Your task to perform on an android device: Go to sound settings Image 0: 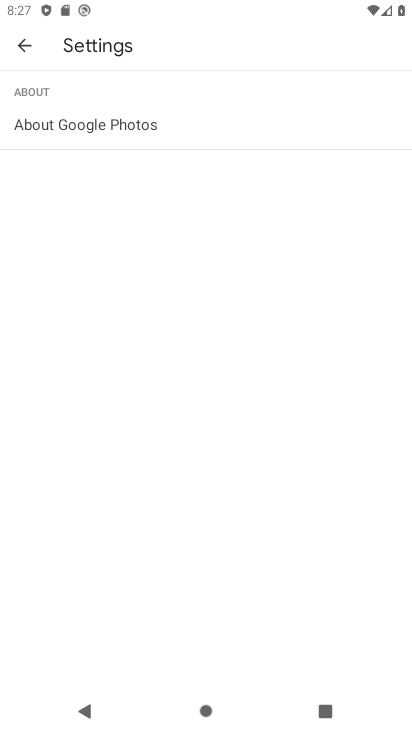
Step 0: press home button
Your task to perform on an android device: Go to sound settings Image 1: 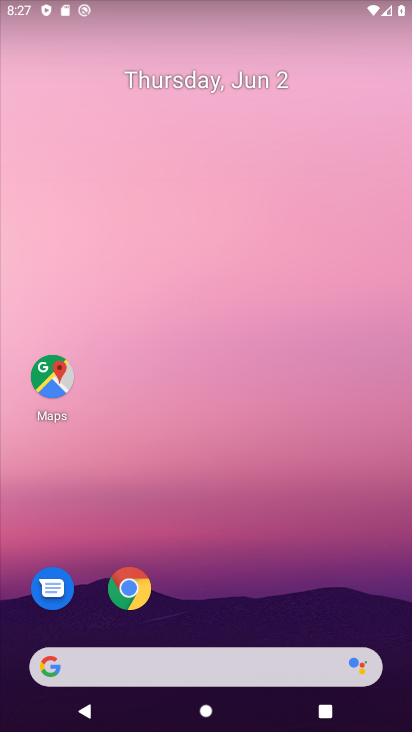
Step 1: drag from (370, 478) to (360, 139)
Your task to perform on an android device: Go to sound settings Image 2: 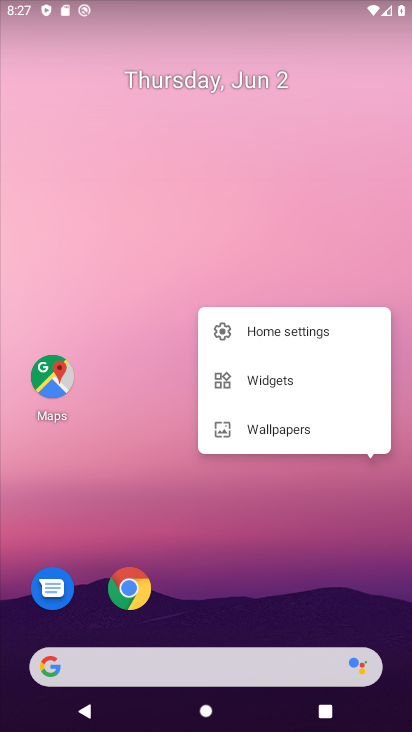
Step 2: drag from (321, 561) to (365, 170)
Your task to perform on an android device: Go to sound settings Image 3: 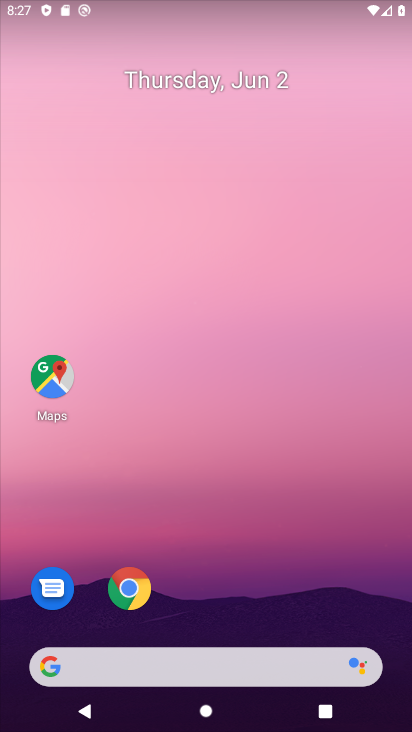
Step 3: drag from (294, 503) to (358, 14)
Your task to perform on an android device: Go to sound settings Image 4: 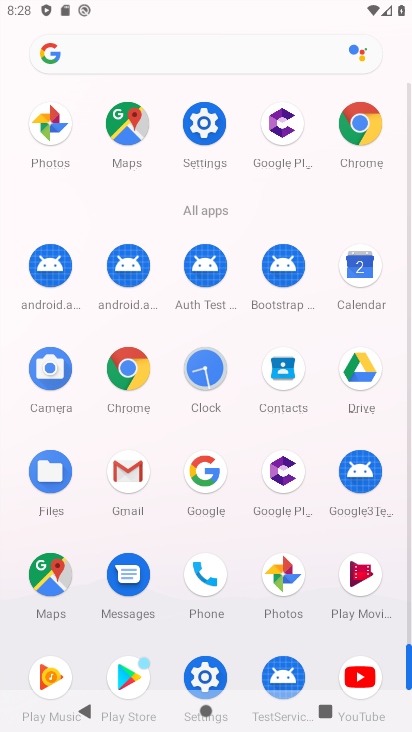
Step 4: click (209, 664)
Your task to perform on an android device: Go to sound settings Image 5: 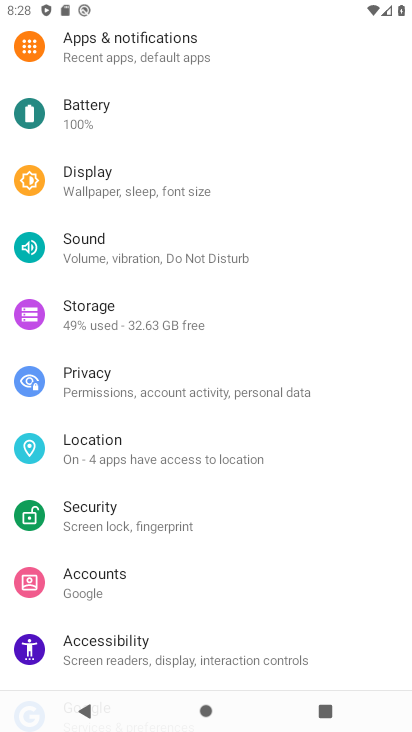
Step 5: drag from (239, 590) to (243, 424)
Your task to perform on an android device: Go to sound settings Image 6: 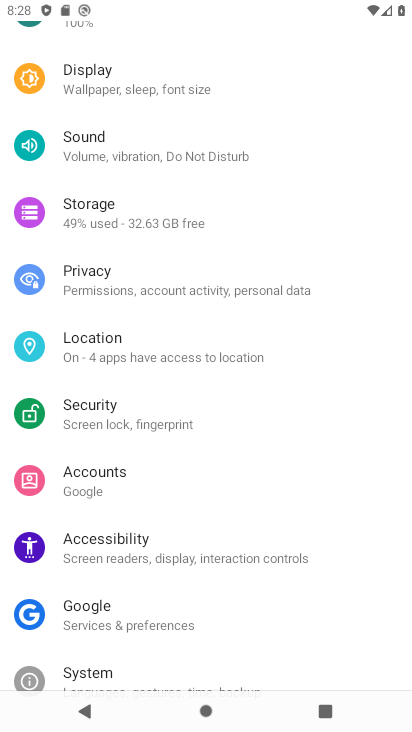
Step 6: click (176, 138)
Your task to perform on an android device: Go to sound settings Image 7: 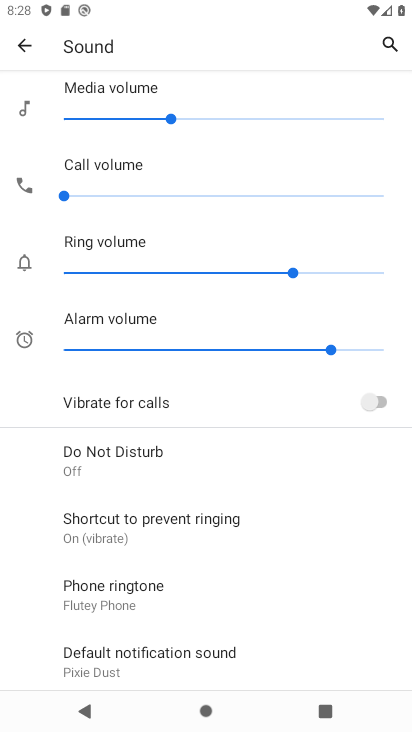
Step 7: task complete